Your task to perform on an android device: Open sound settings Image 0: 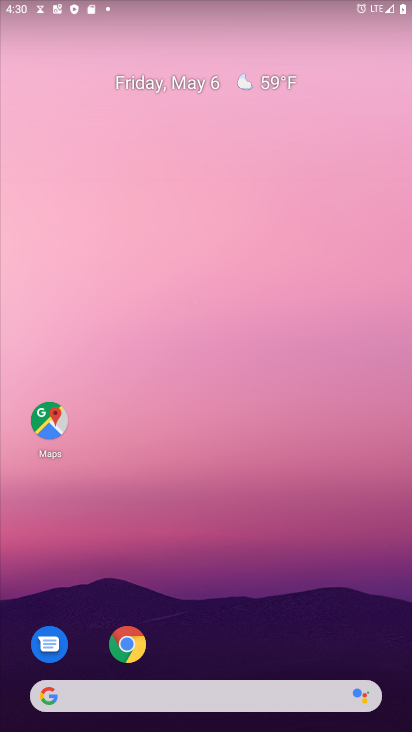
Step 0: drag from (223, 644) to (235, 90)
Your task to perform on an android device: Open sound settings Image 1: 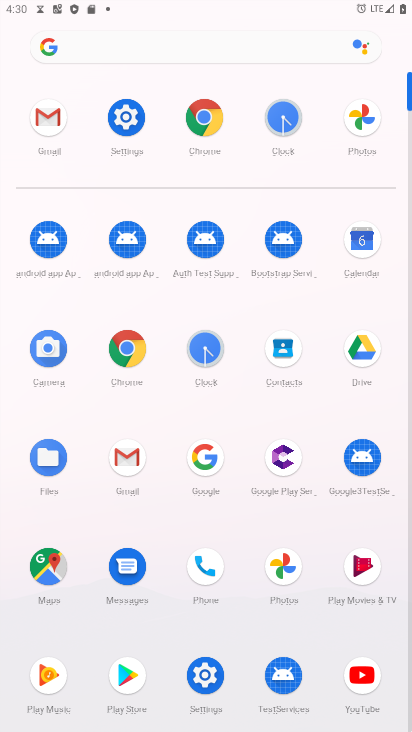
Step 1: click (124, 118)
Your task to perform on an android device: Open sound settings Image 2: 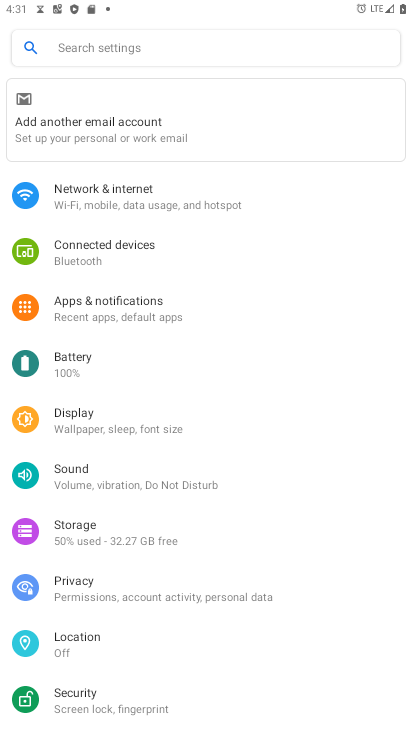
Step 2: click (137, 489)
Your task to perform on an android device: Open sound settings Image 3: 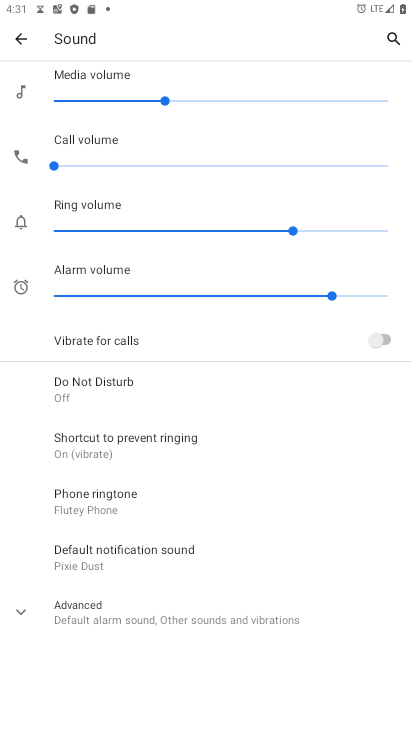
Step 3: task complete